Your task to perform on an android device: Open network settings Image 0: 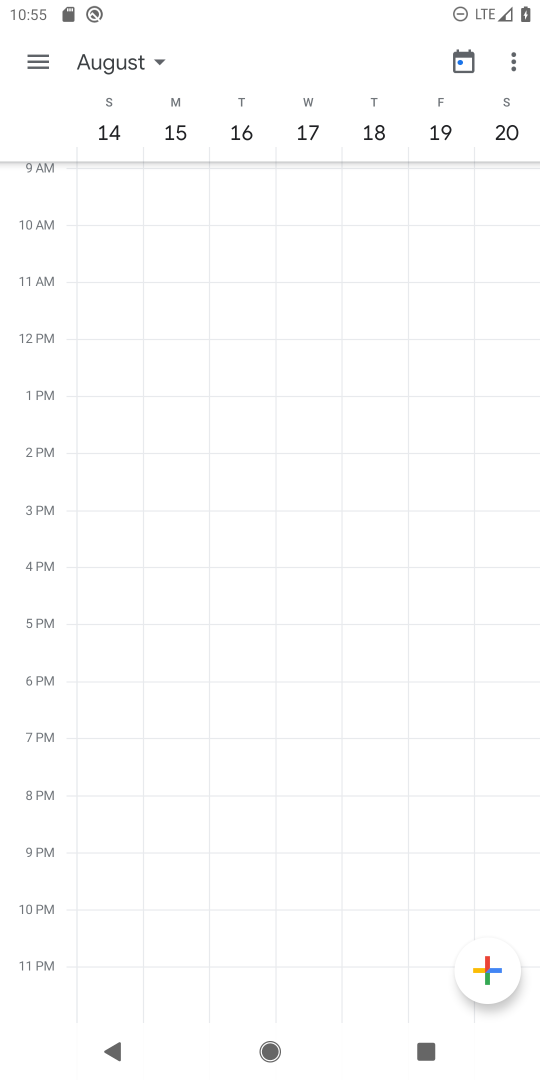
Step 0: press home button
Your task to perform on an android device: Open network settings Image 1: 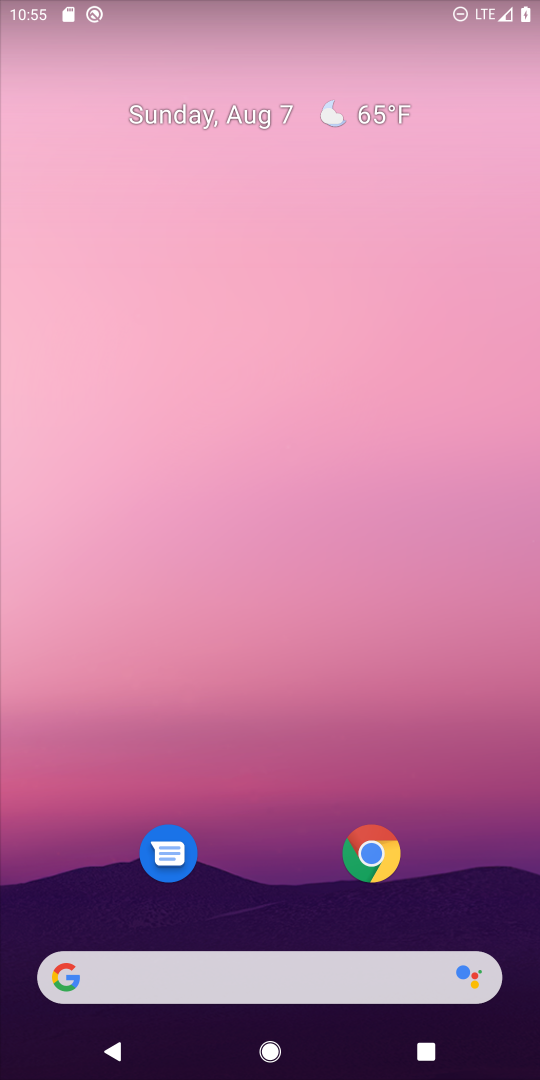
Step 1: drag from (254, 888) to (311, 193)
Your task to perform on an android device: Open network settings Image 2: 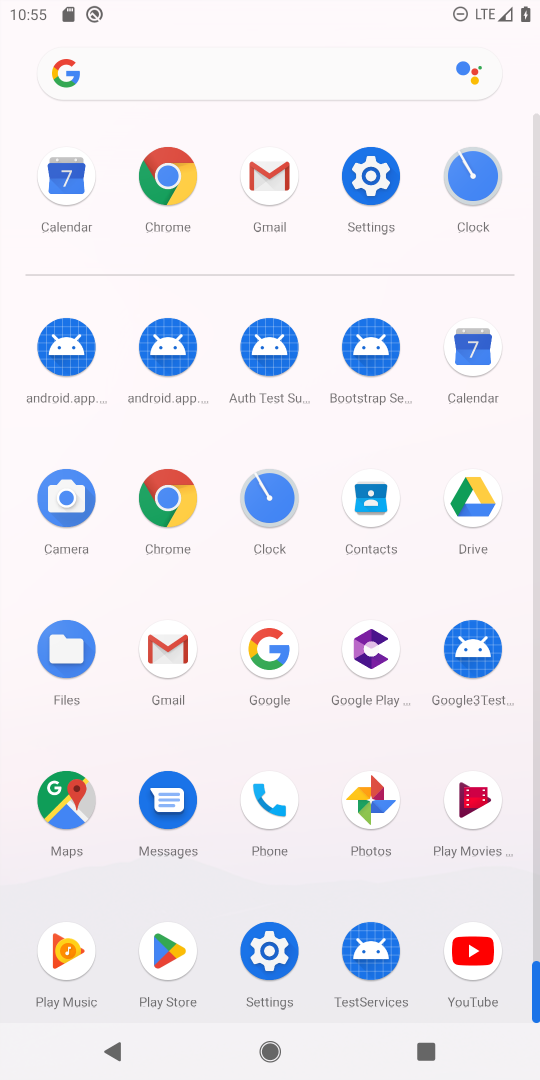
Step 2: click (365, 146)
Your task to perform on an android device: Open network settings Image 3: 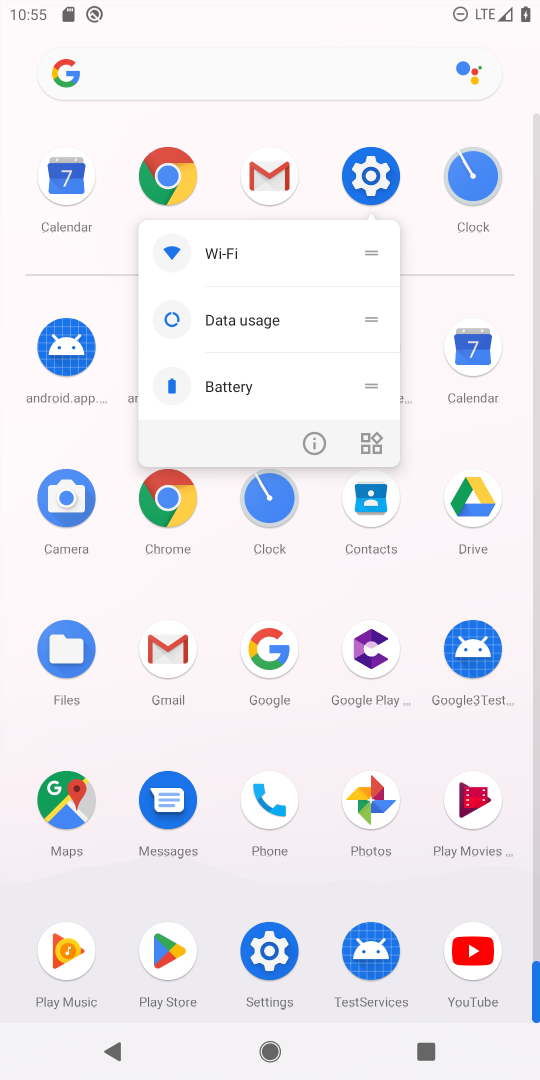
Step 3: click (348, 177)
Your task to perform on an android device: Open network settings Image 4: 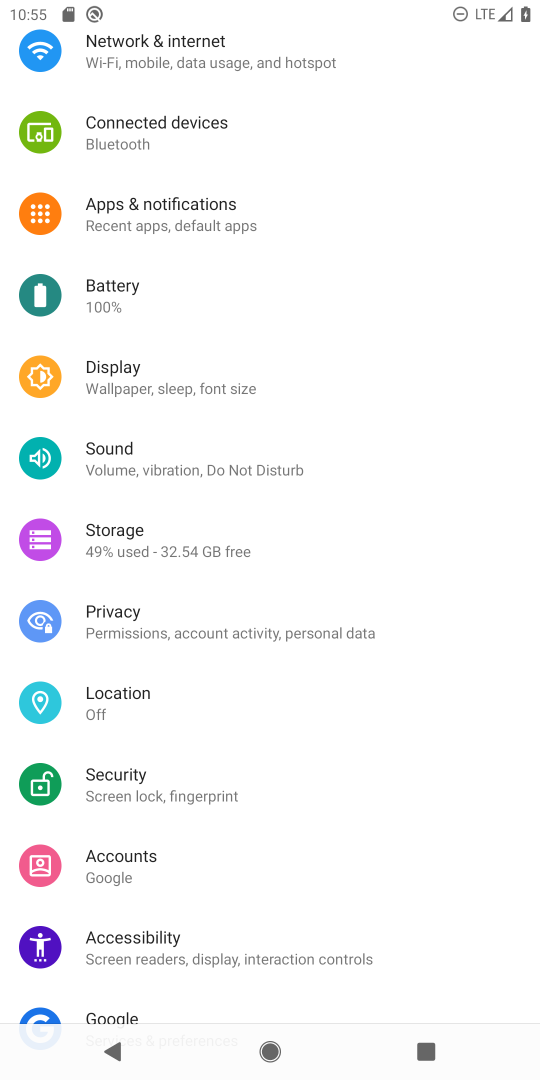
Step 4: click (152, 59)
Your task to perform on an android device: Open network settings Image 5: 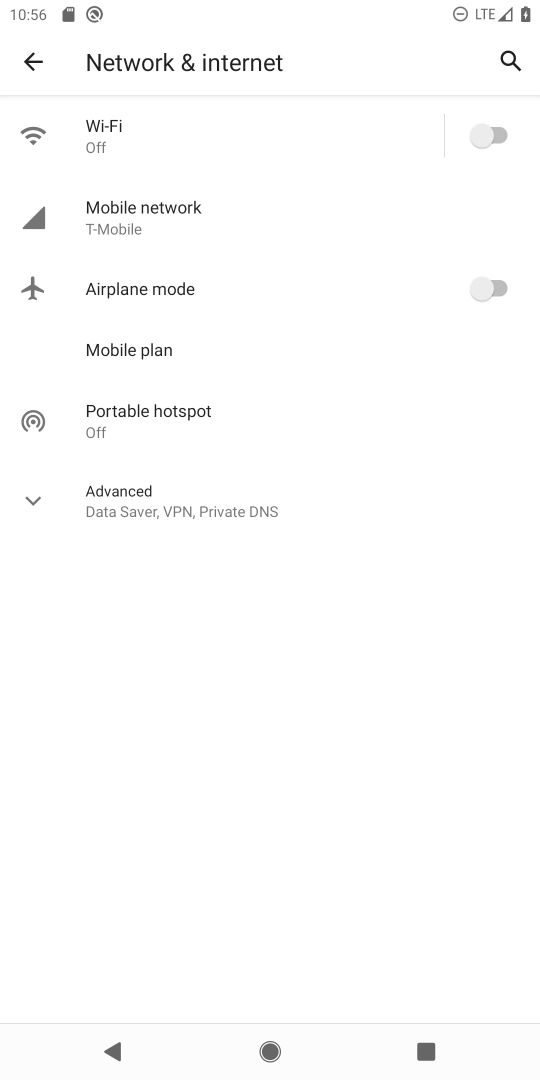
Step 5: task complete